Your task to perform on an android device: Open the calendar app, open the side menu, and click the "Day" option Image 0: 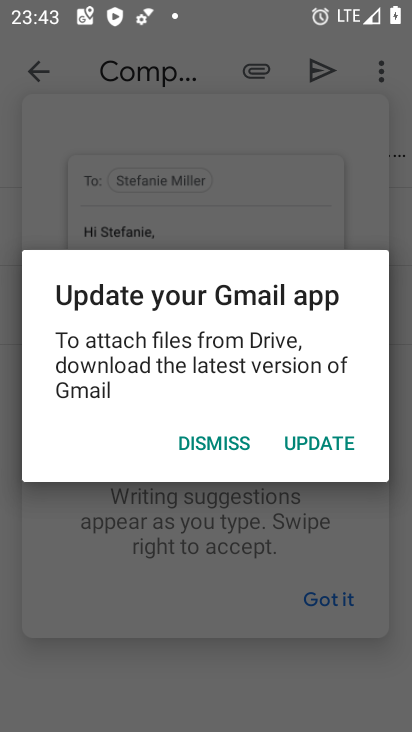
Step 0: press home button
Your task to perform on an android device: Open the calendar app, open the side menu, and click the "Day" option Image 1: 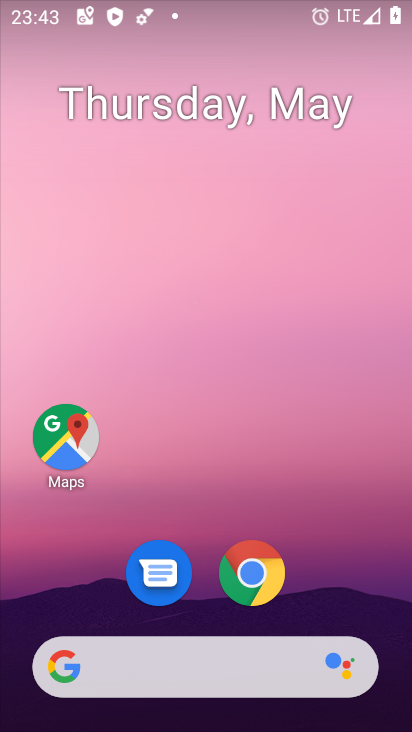
Step 1: drag from (181, 607) to (135, 191)
Your task to perform on an android device: Open the calendar app, open the side menu, and click the "Day" option Image 2: 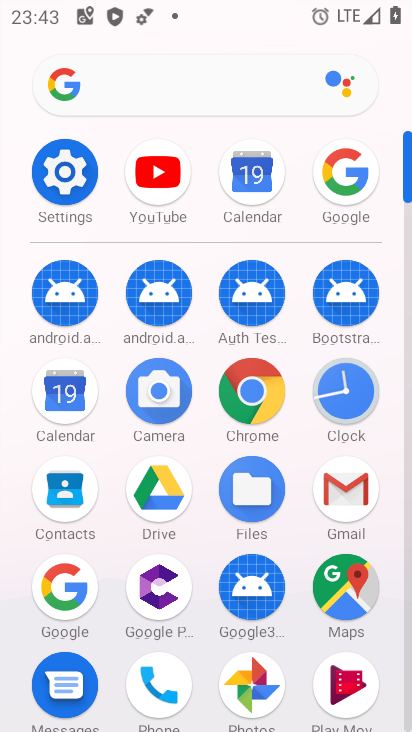
Step 2: click (53, 384)
Your task to perform on an android device: Open the calendar app, open the side menu, and click the "Day" option Image 3: 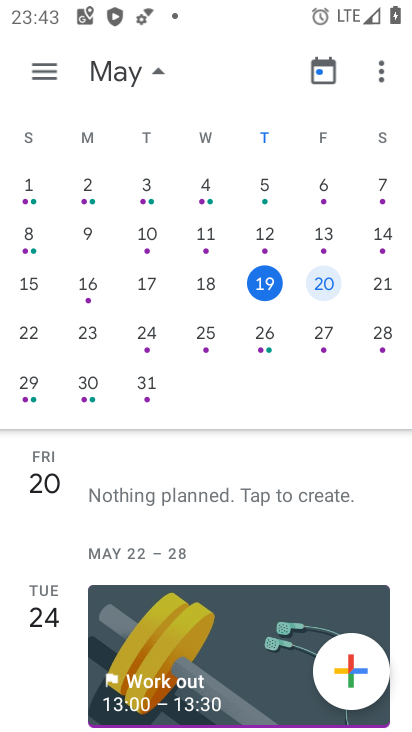
Step 3: click (31, 68)
Your task to perform on an android device: Open the calendar app, open the side menu, and click the "Day" option Image 4: 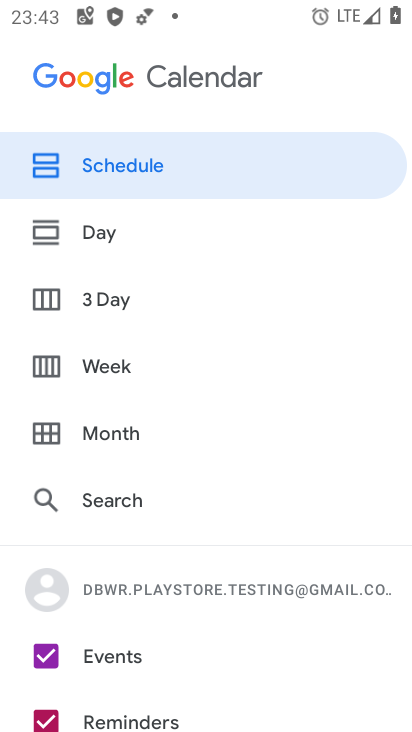
Step 4: click (142, 215)
Your task to perform on an android device: Open the calendar app, open the side menu, and click the "Day" option Image 5: 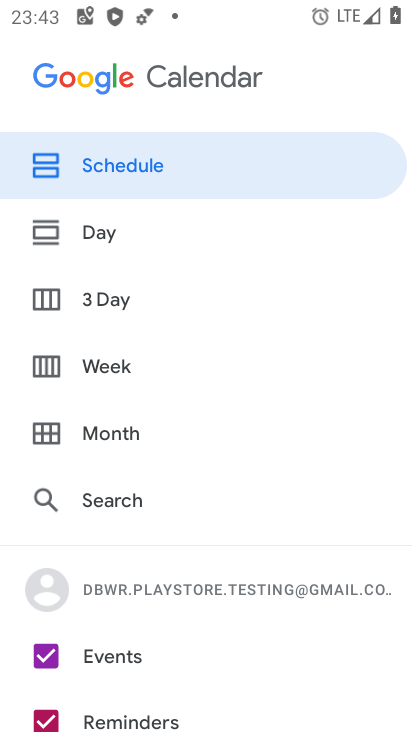
Step 5: click (122, 227)
Your task to perform on an android device: Open the calendar app, open the side menu, and click the "Day" option Image 6: 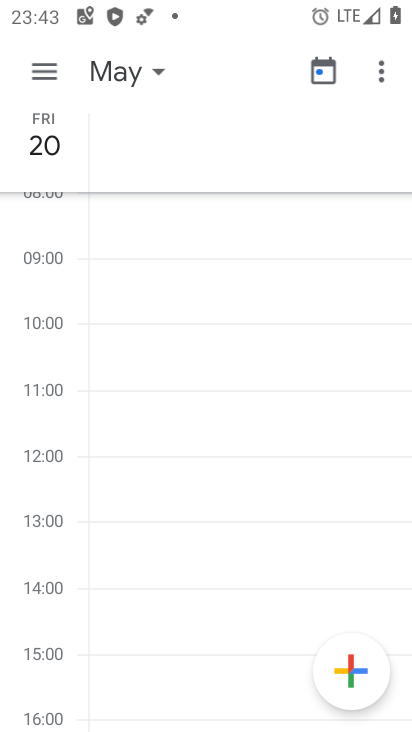
Step 6: task complete